Your task to perform on an android device: empty trash in the gmail app Image 0: 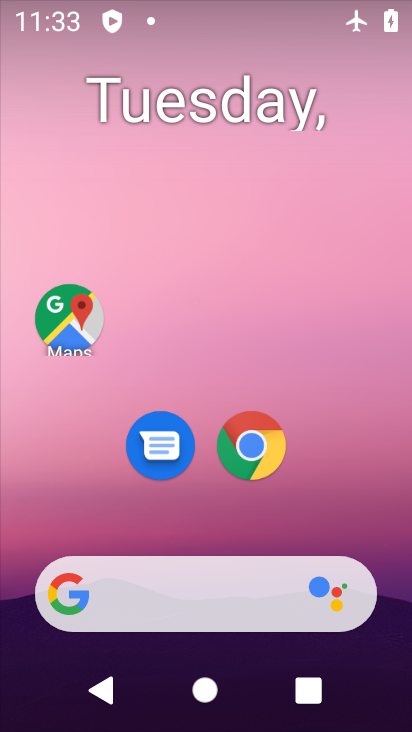
Step 0: drag from (353, 538) to (249, 44)
Your task to perform on an android device: empty trash in the gmail app Image 1: 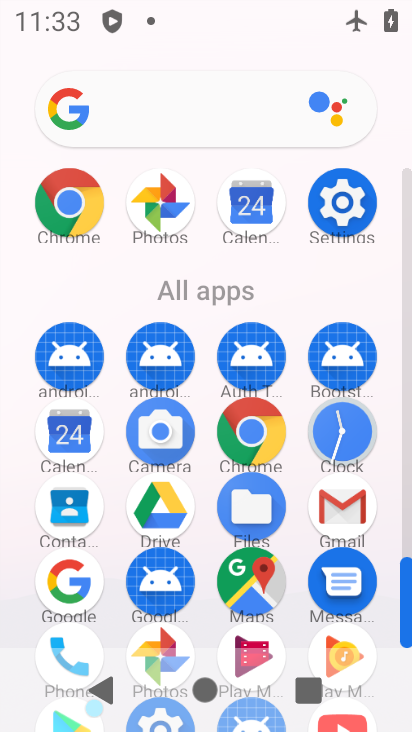
Step 1: drag from (17, 608) to (5, 277)
Your task to perform on an android device: empty trash in the gmail app Image 2: 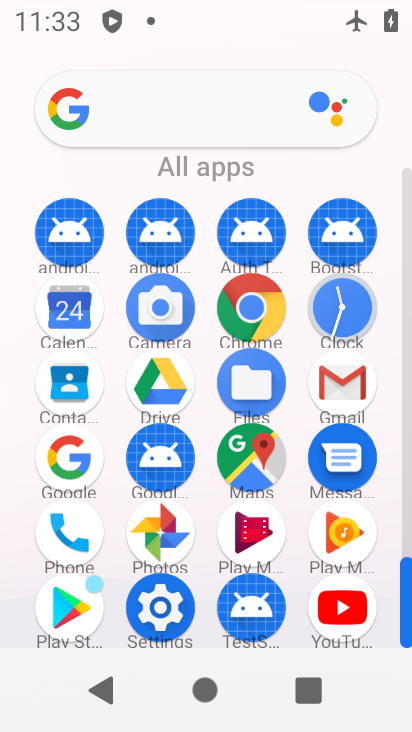
Step 2: click (340, 377)
Your task to perform on an android device: empty trash in the gmail app Image 3: 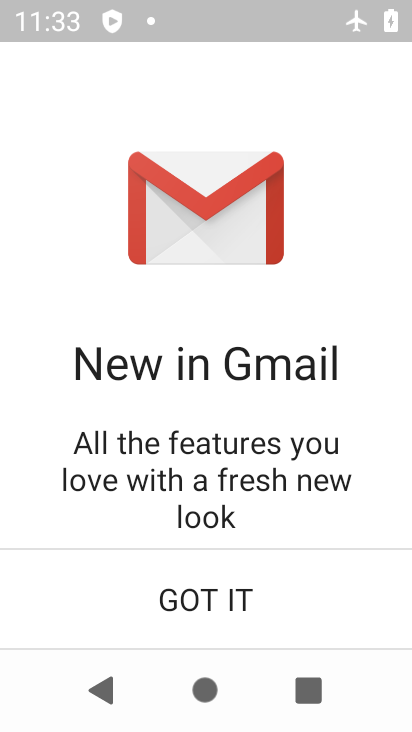
Step 3: click (206, 592)
Your task to perform on an android device: empty trash in the gmail app Image 4: 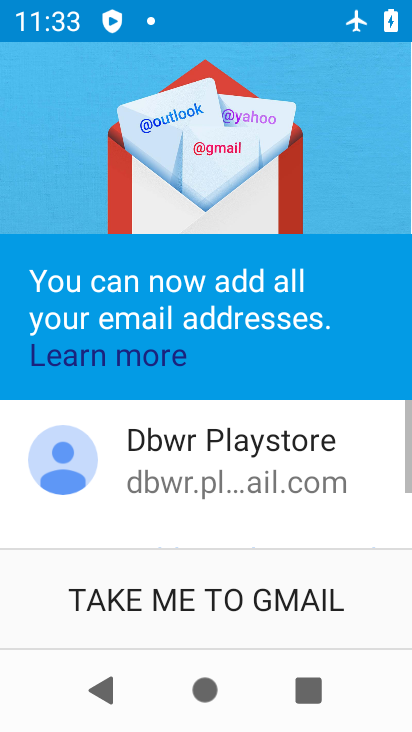
Step 4: click (206, 592)
Your task to perform on an android device: empty trash in the gmail app Image 5: 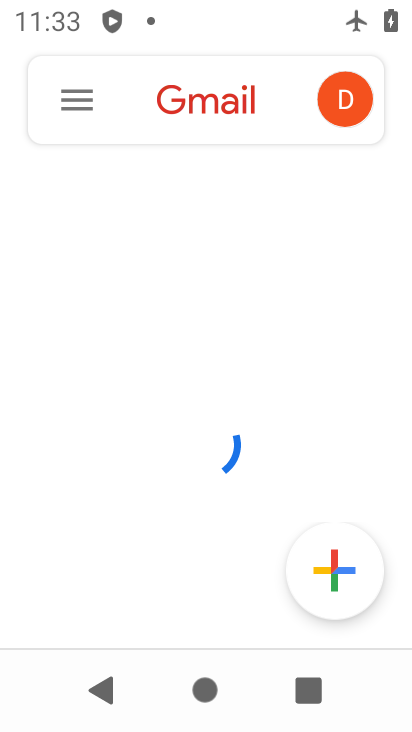
Step 5: click (72, 99)
Your task to perform on an android device: empty trash in the gmail app Image 6: 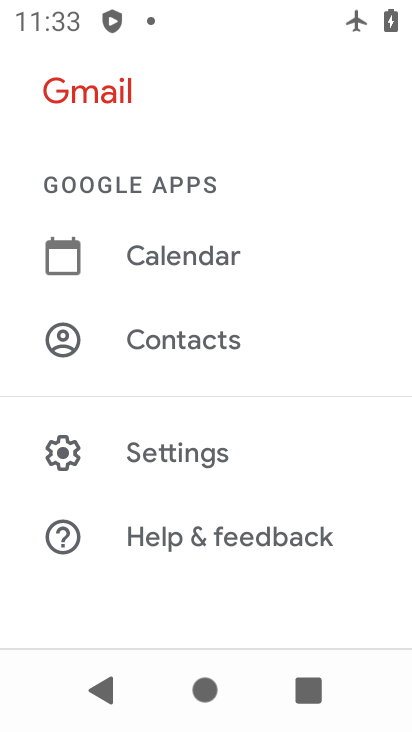
Step 6: drag from (224, 533) to (247, 121)
Your task to perform on an android device: empty trash in the gmail app Image 7: 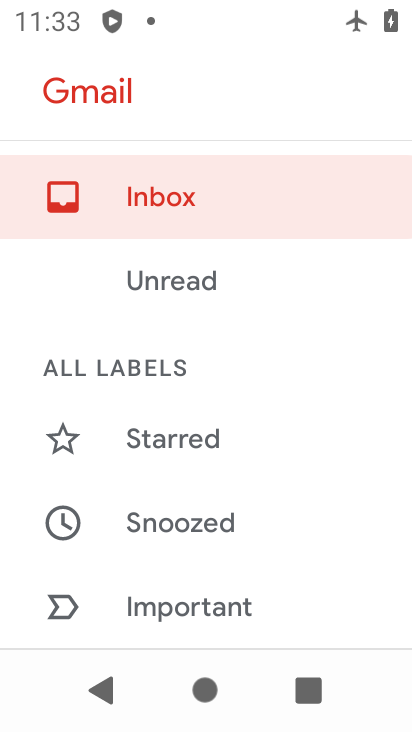
Step 7: drag from (240, 398) to (218, 636)
Your task to perform on an android device: empty trash in the gmail app Image 8: 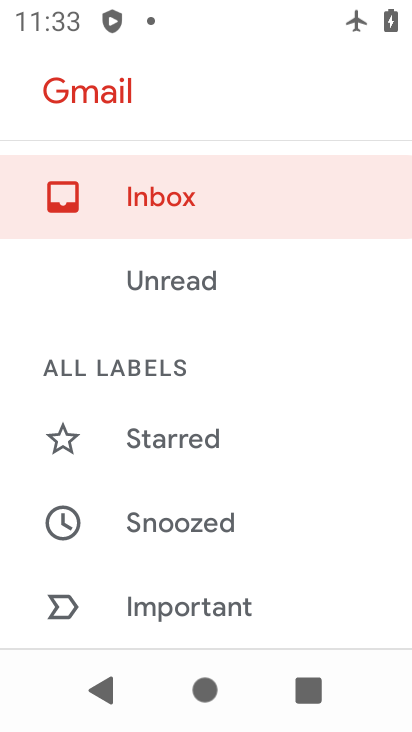
Step 8: drag from (245, 268) to (238, 609)
Your task to perform on an android device: empty trash in the gmail app Image 9: 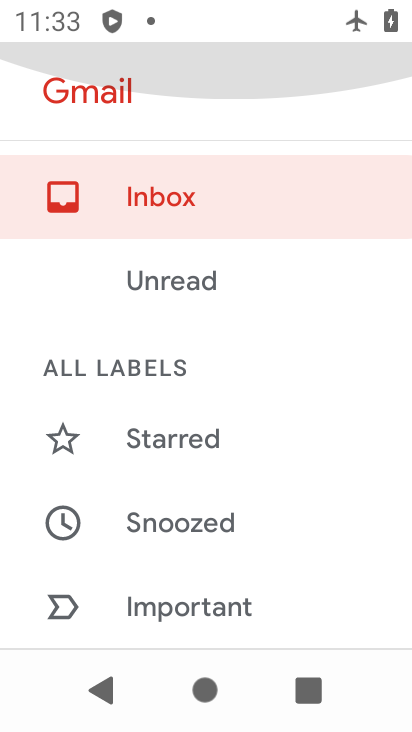
Step 9: drag from (236, 585) to (237, 184)
Your task to perform on an android device: empty trash in the gmail app Image 10: 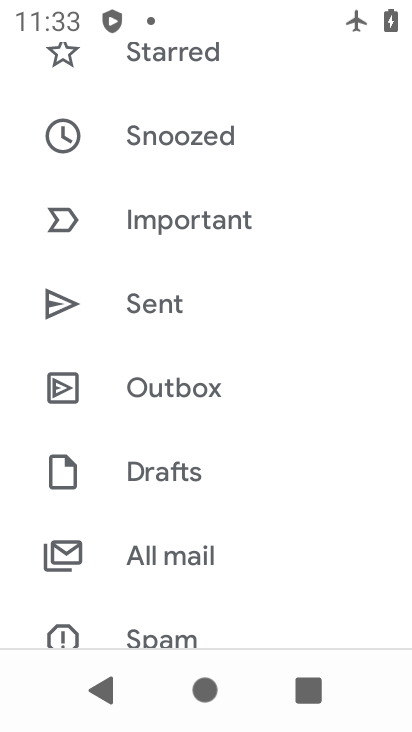
Step 10: drag from (206, 591) to (204, 238)
Your task to perform on an android device: empty trash in the gmail app Image 11: 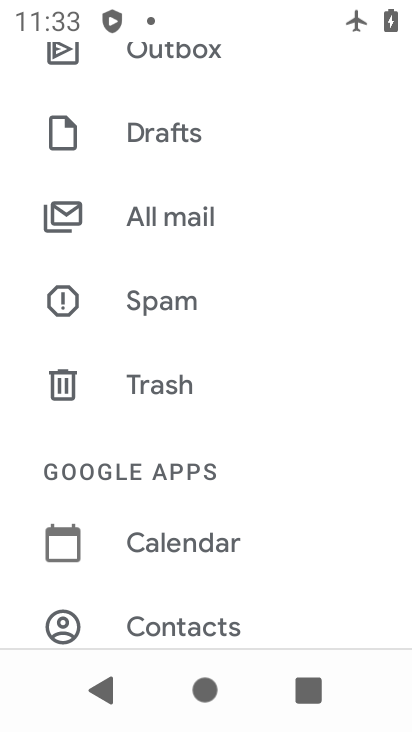
Step 11: click (174, 382)
Your task to perform on an android device: empty trash in the gmail app Image 12: 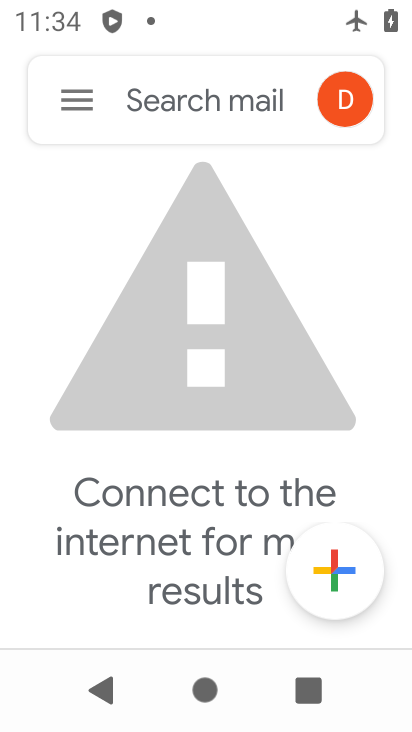
Step 12: task complete